Your task to perform on an android device: uninstall "Google Pay: Save, Pay, Manage" Image 0: 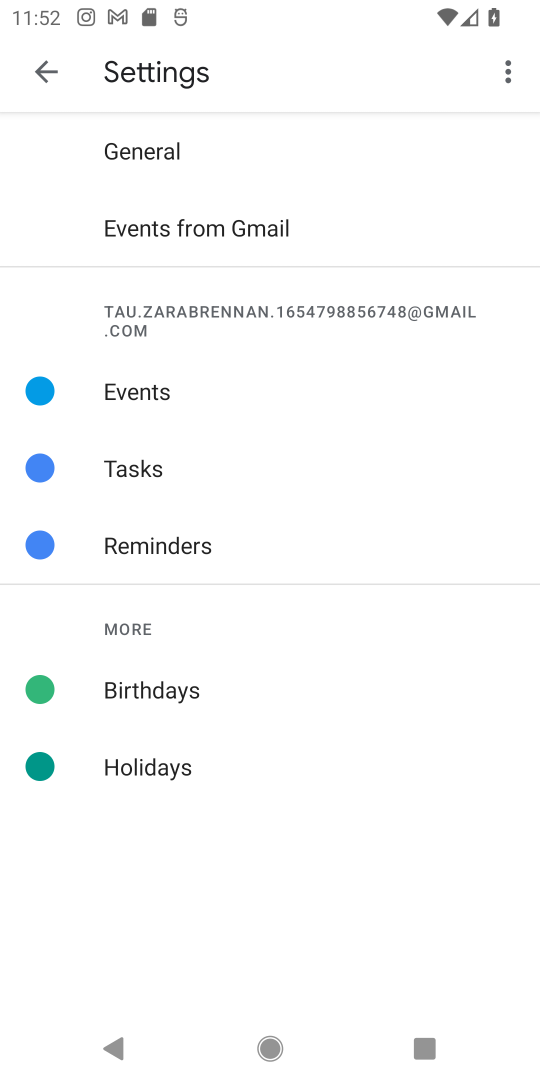
Step 0: press home button
Your task to perform on an android device: uninstall "Google Pay: Save, Pay, Manage" Image 1: 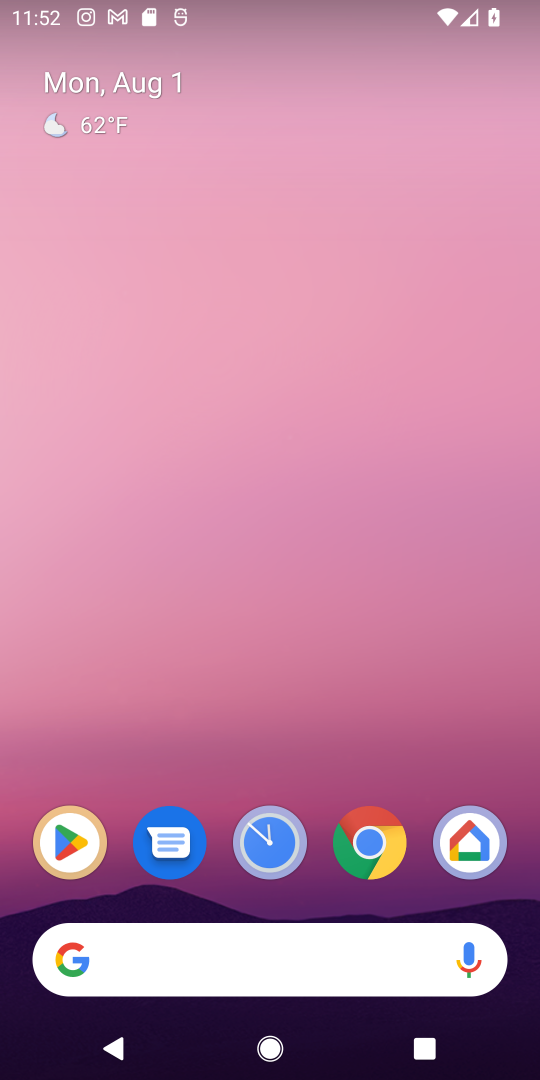
Step 1: click (58, 796)
Your task to perform on an android device: uninstall "Google Pay: Save, Pay, Manage" Image 2: 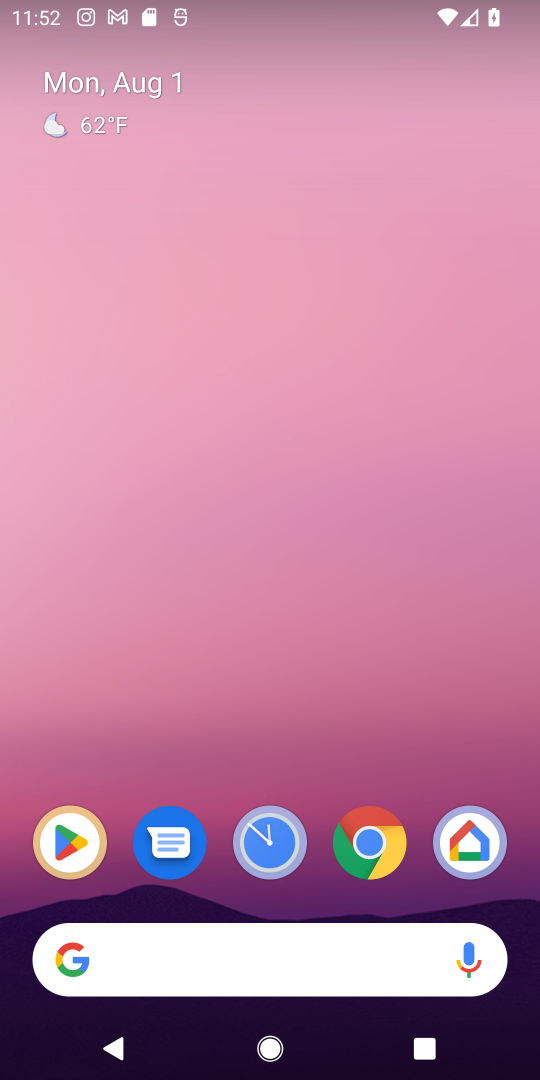
Step 2: click (87, 849)
Your task to perform on an android device: uninstall "Google Pay: Save, Pay, Manage" Image 3: 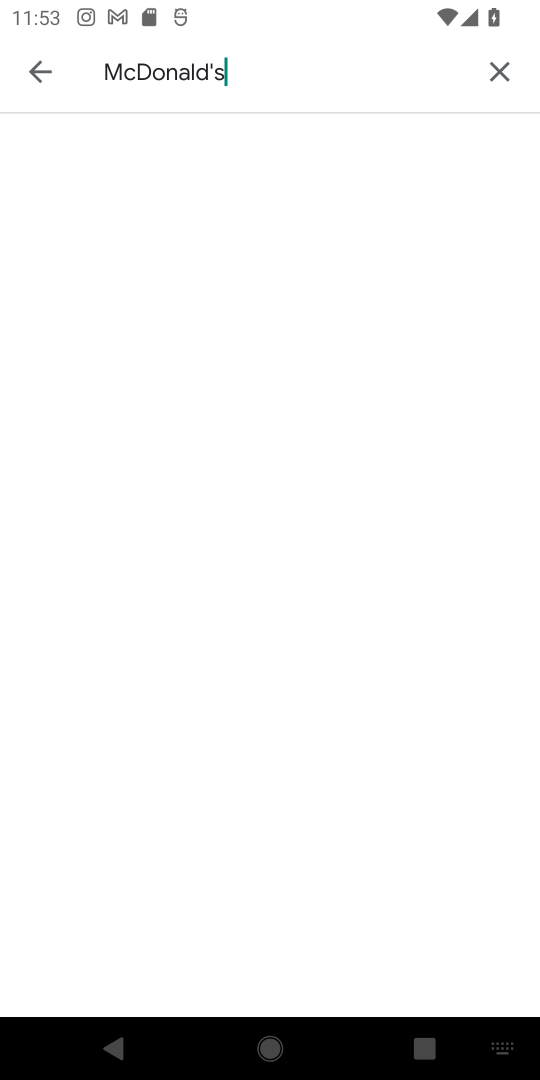
Step 3: click (476, 77)
Your task to perform on an android device: uninstall "Google Pay: Save, Pay, Manage" Image 4: 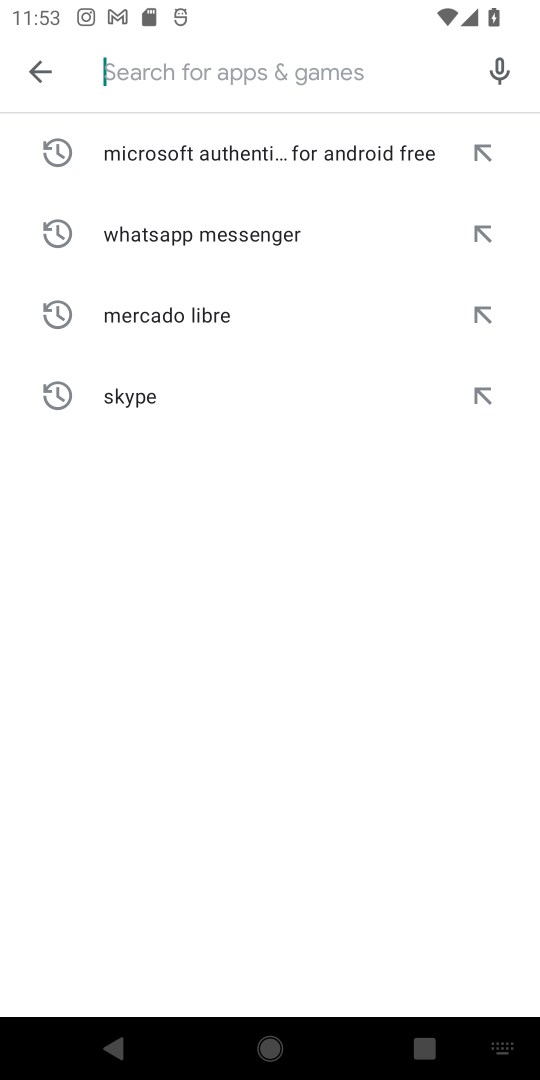
Step 4: press home button
Your task to perform on an android device: uninstall "Google Pay: Save, Pay, Manage" Image 5: 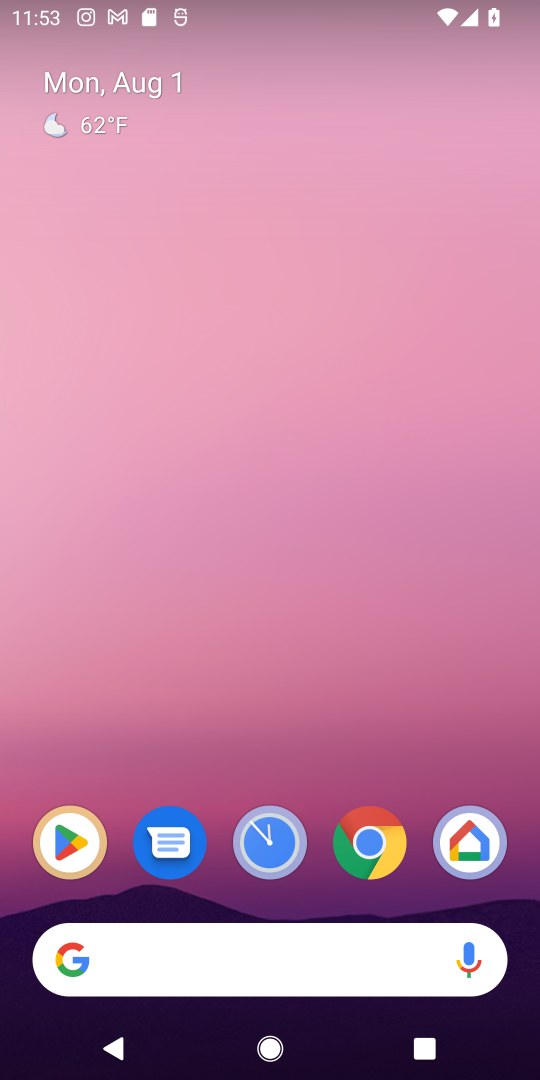
Step 5: click (80, 841)
Your task to perform on an android device: uninstall "Google Pay: Save, Pay, Manage" Image 6: 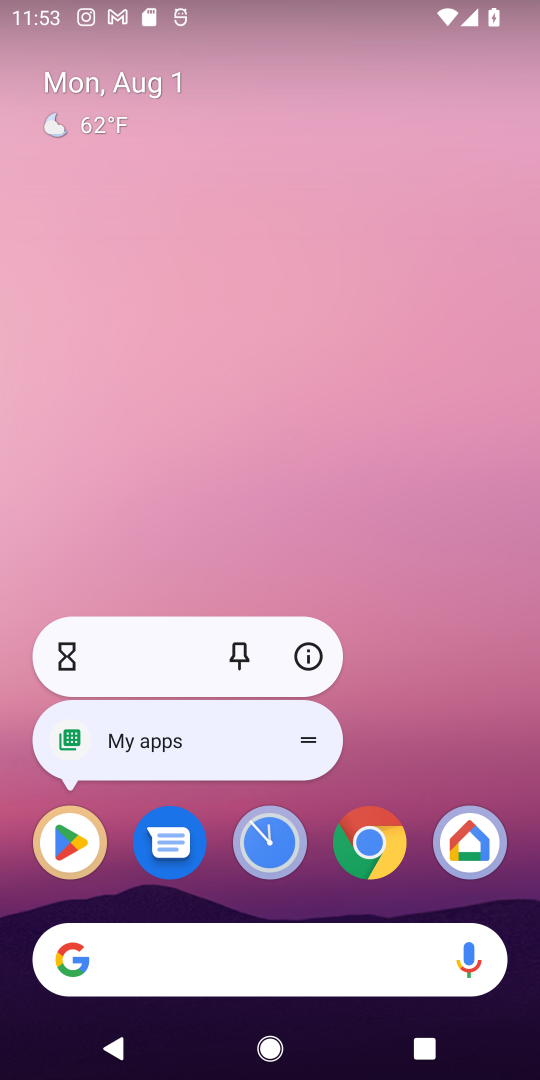
Step 6: click (96, 835)
Your task to perform on an android device: uninstall "Google Pay: Save, Pay, Manage" Image 7: 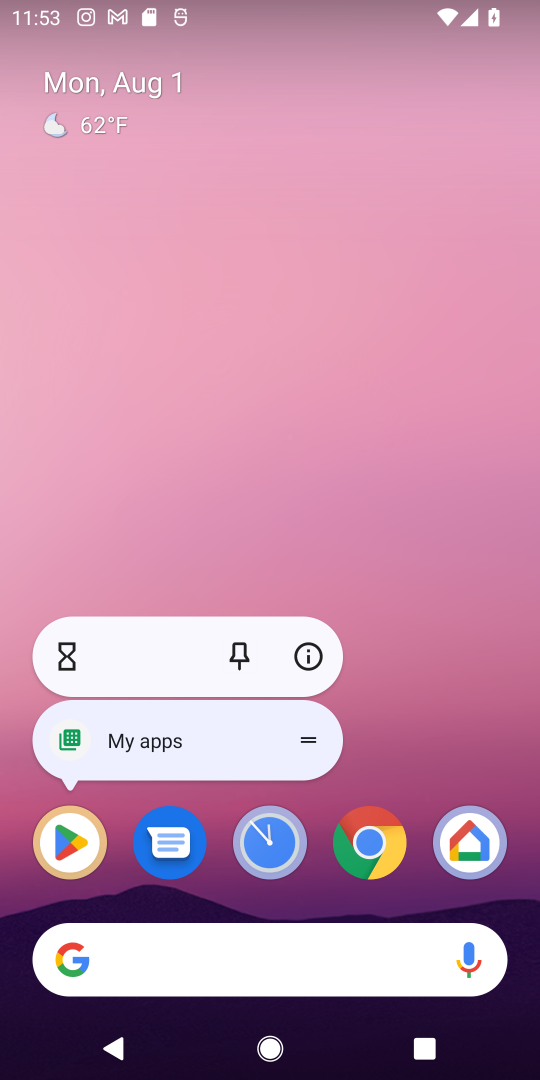
Step 7: click (93, 832)
Your task to perform on an android device: uninstall "Google Pay: Save, Pay, Manage" Image 8: 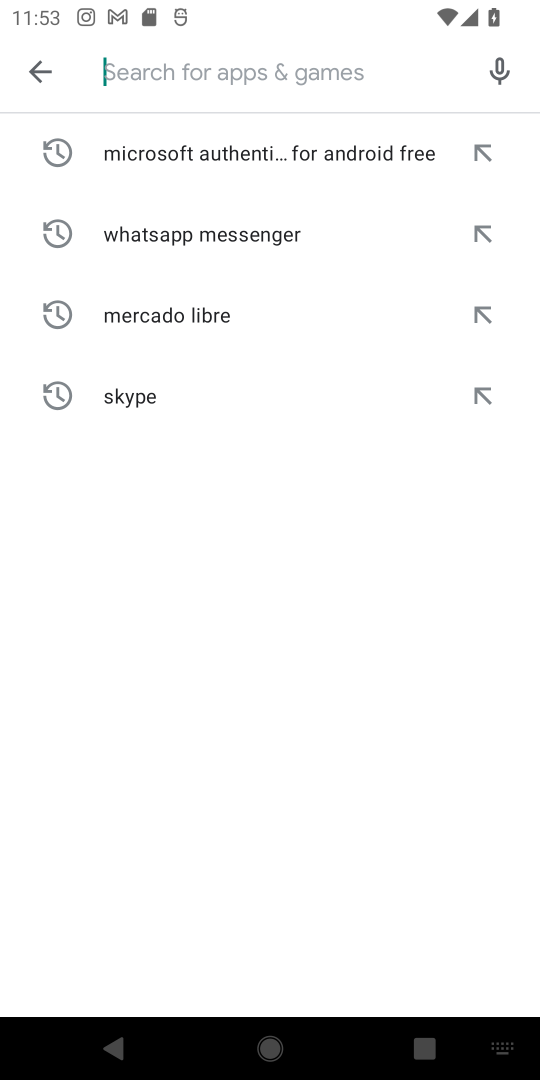
Step 8: click (163, 66)
Your task to perform on an android device: uninstall "Google Pay: Save, Pay, Manage" Image 9: 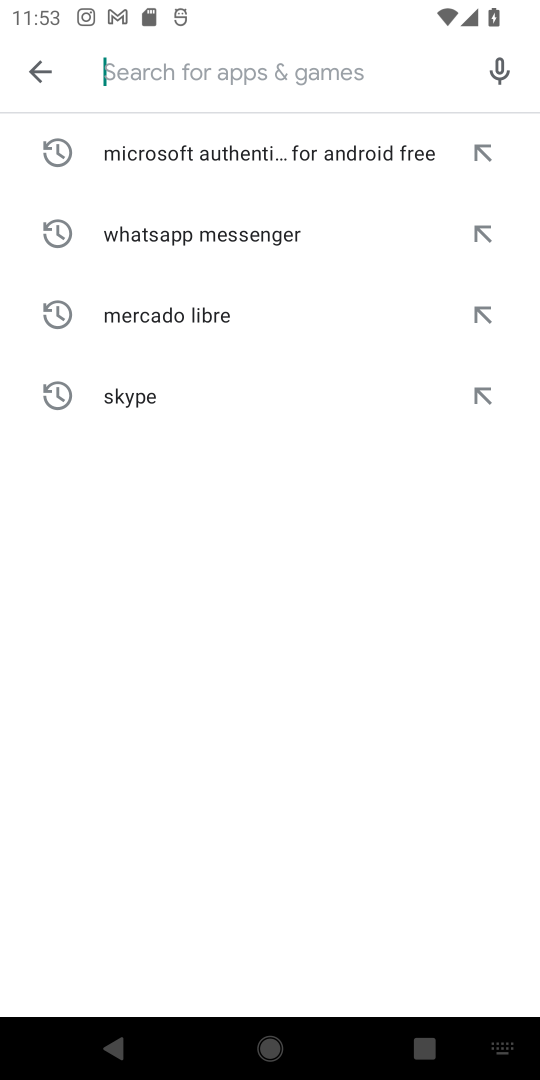
Step 9: type "Google Pay: Save, Pay, Manage"
Your task to perform on an android device: uninstall "Google Pay: Save, Pay, Manage" Image 10: 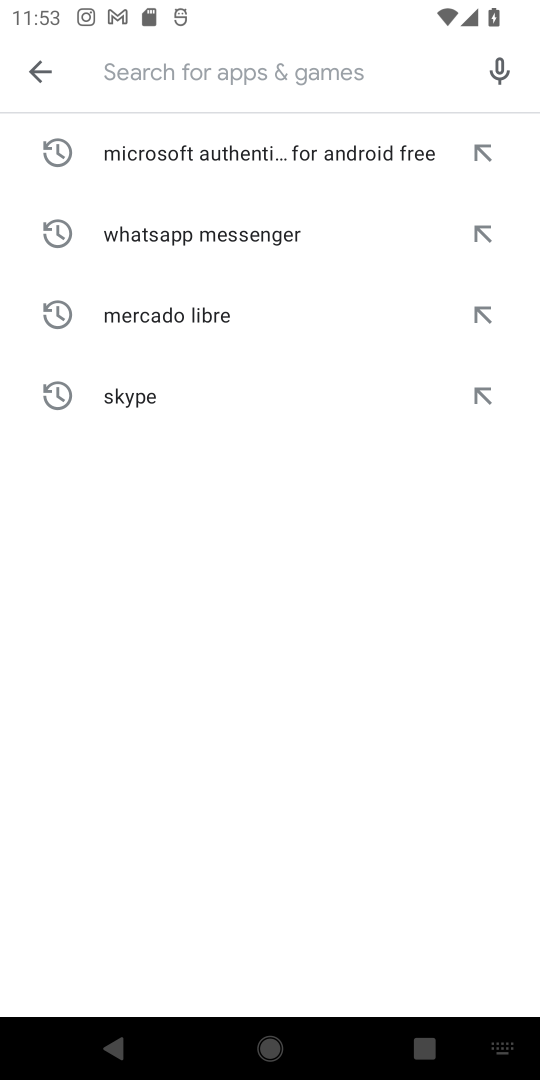
Step 10: click (233, 638)
Your task to perform on an android device: uninstall "Google Pay: Save, Pay, Manage" Image 11: 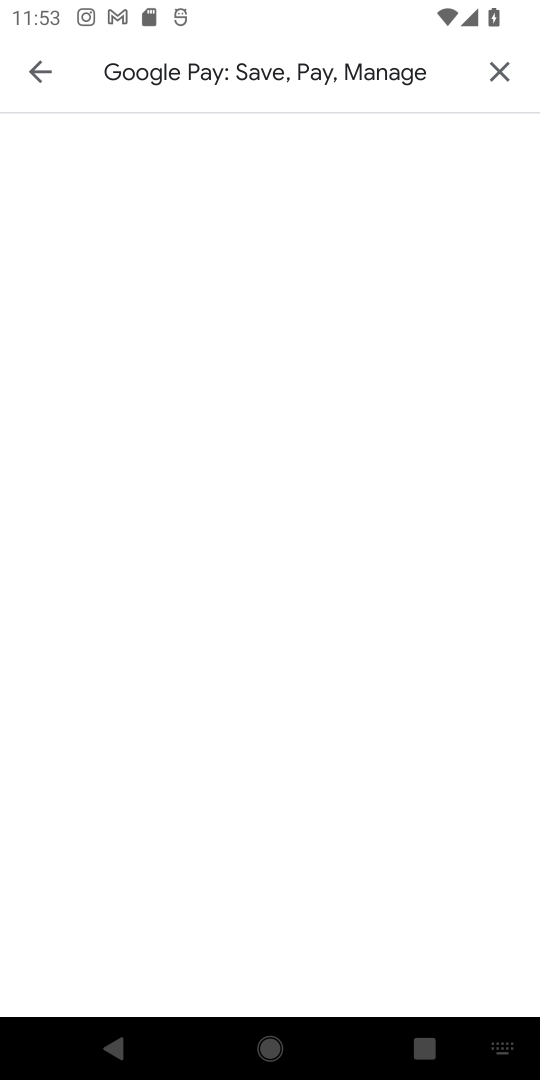
Step 11: click (438, 74)
Your task to perform on an android device: uninstall "Google Pay: Save, Pay, Manage" Image 12: 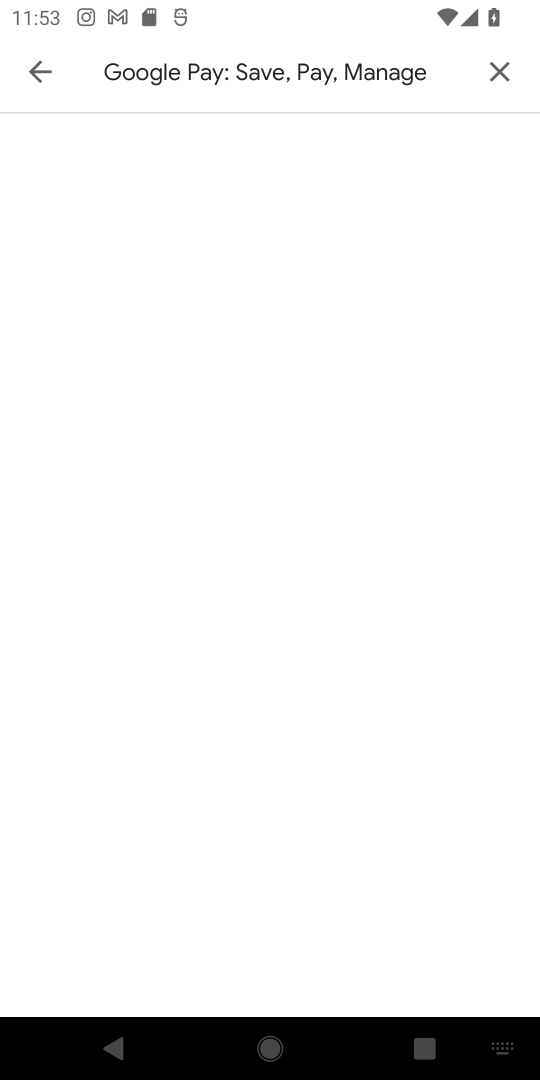
Step 12: drag from (320, 14) to (356, 556)
Your task to perform on an android device: uninstall "Google Pay: Save, Pay, Manage" Image 13: 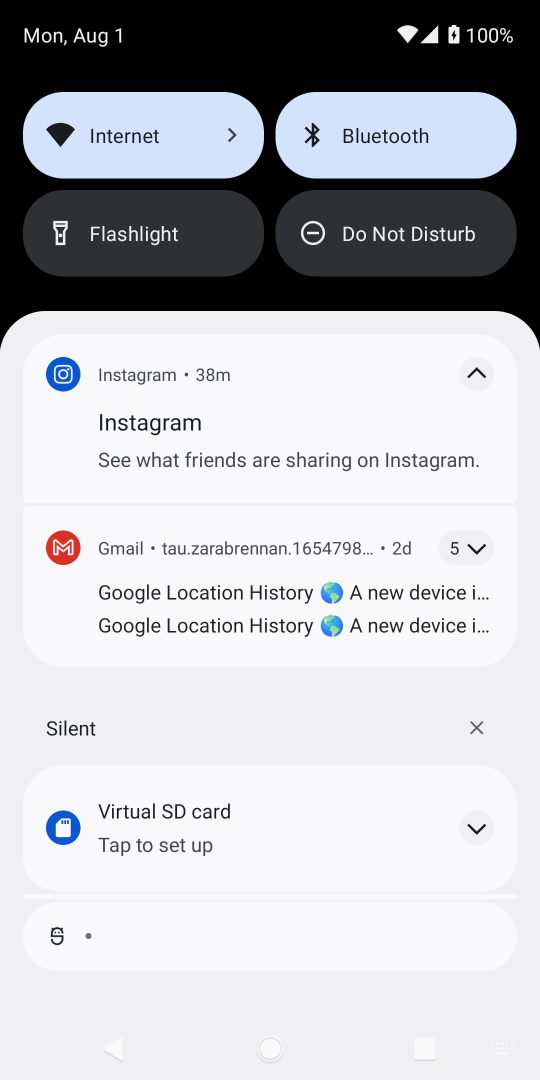
Step 13: drag from (255, 944) to (408, 18)
Your task to perform on an android device: uninstall "Google Pay: Save, Pay, Manage" Image 14: 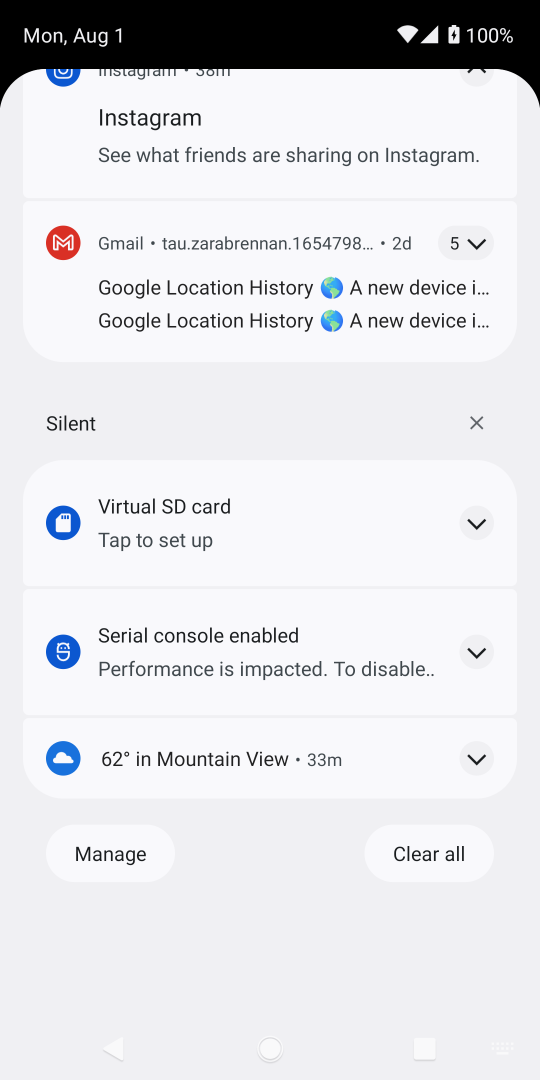
Step 14: drag from (201, 890) to (327, 88)
Your task to perform on an android device: uninstall "Google Pay: Save, Pay, Manage" Image 15: 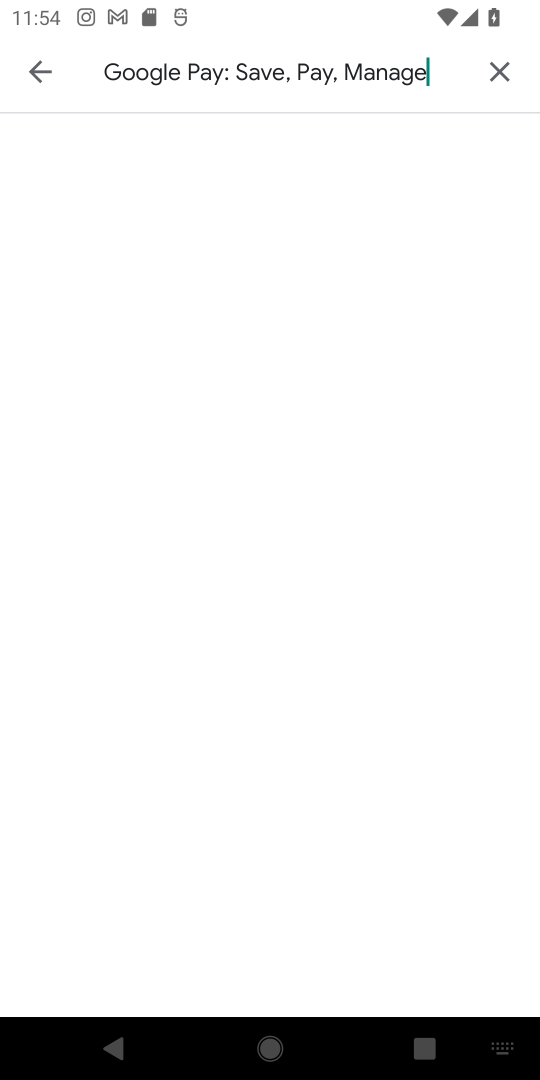
Step 15: click (430, 56)
Your task to perform on an android device: uninstall "Google Pay: Save, Pay, Manage" Image 16: 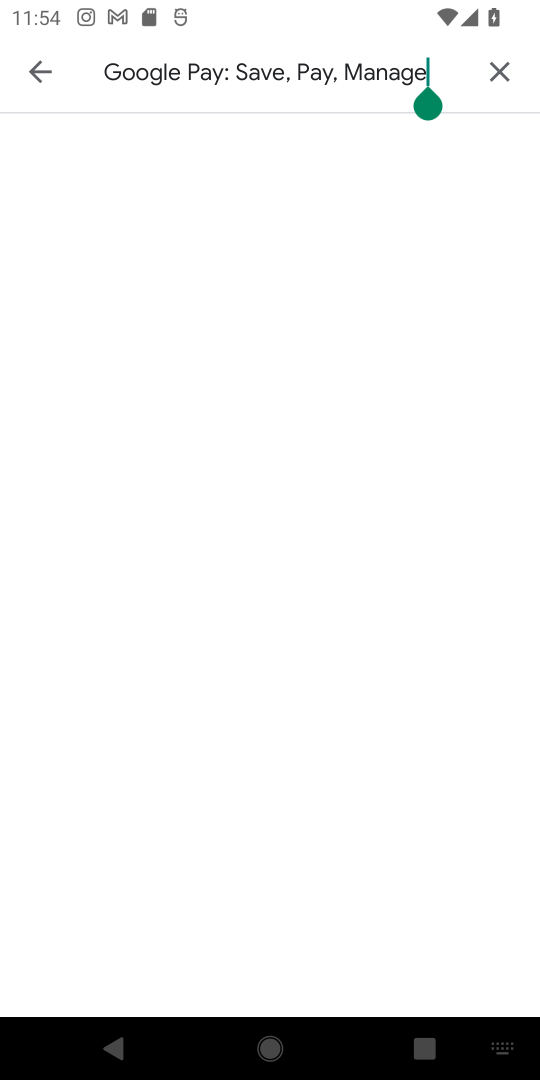
Step 16: click (495, 64)
Your task to perform on an android device: uninstall "Google Pay: Save, Pay, Manage" Image 17: 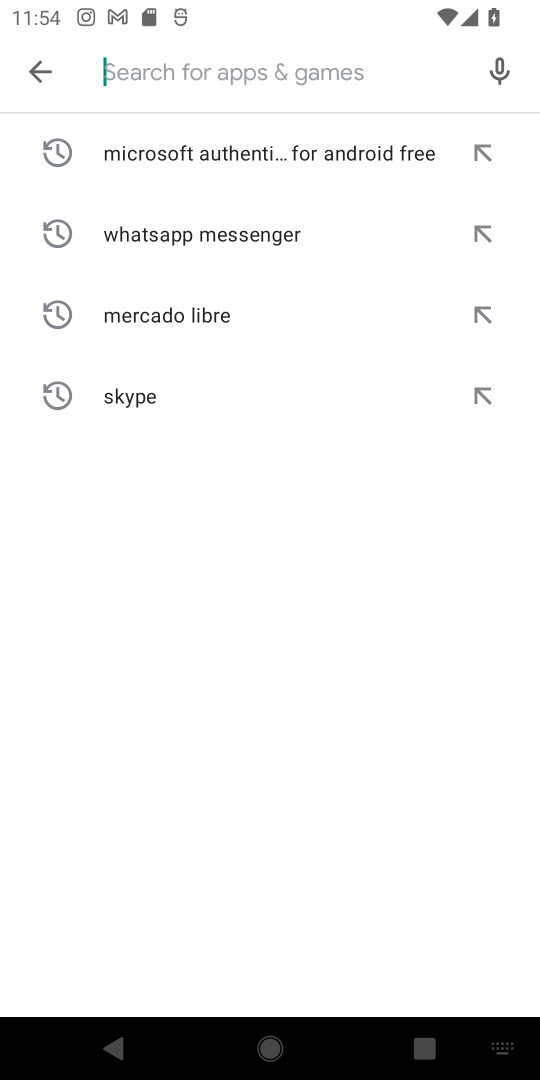
Step 17: type "google pay"
Your task to perform on an android device: uninstall "Google Pay: Save, Pay, Manage" Image 18: 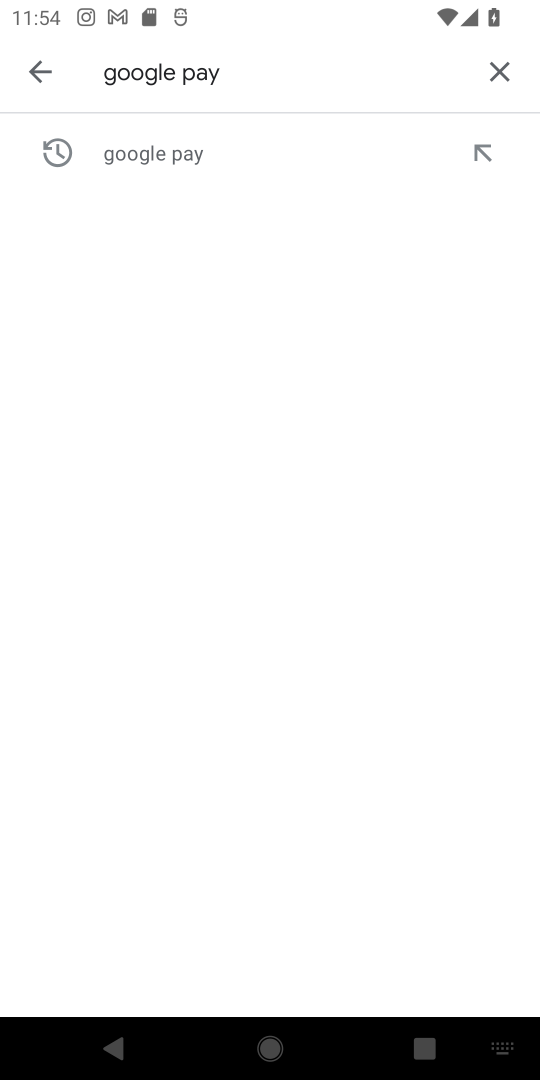
Step 18: click (170, 154)
Your task to perform on an android device: uninstall "Google Pay: Save, Pay, Manage" Image 19: 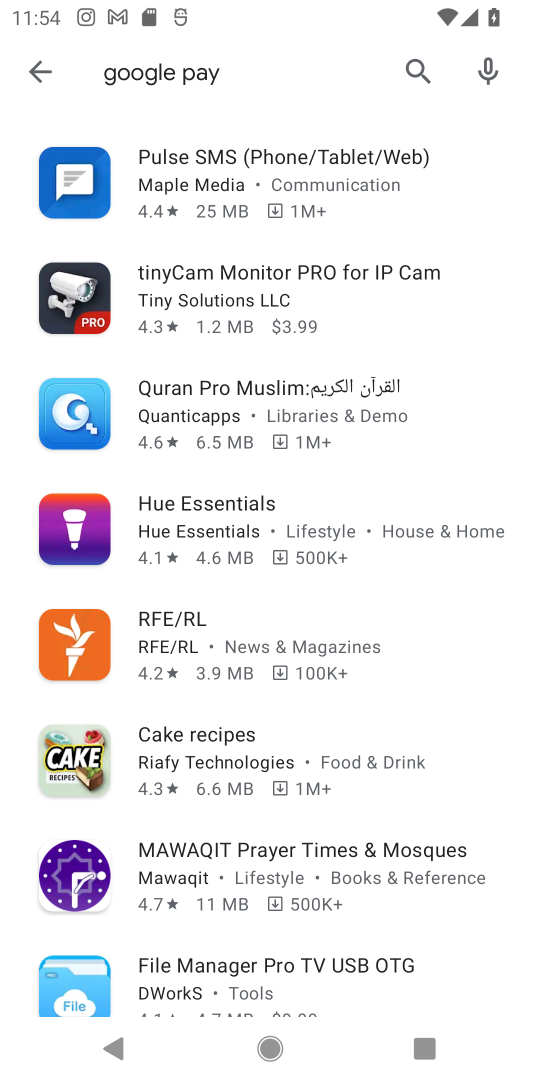
Step 19: task complete